Your task to perform on an android device: How much does the HisenseTV cost? Image 0: 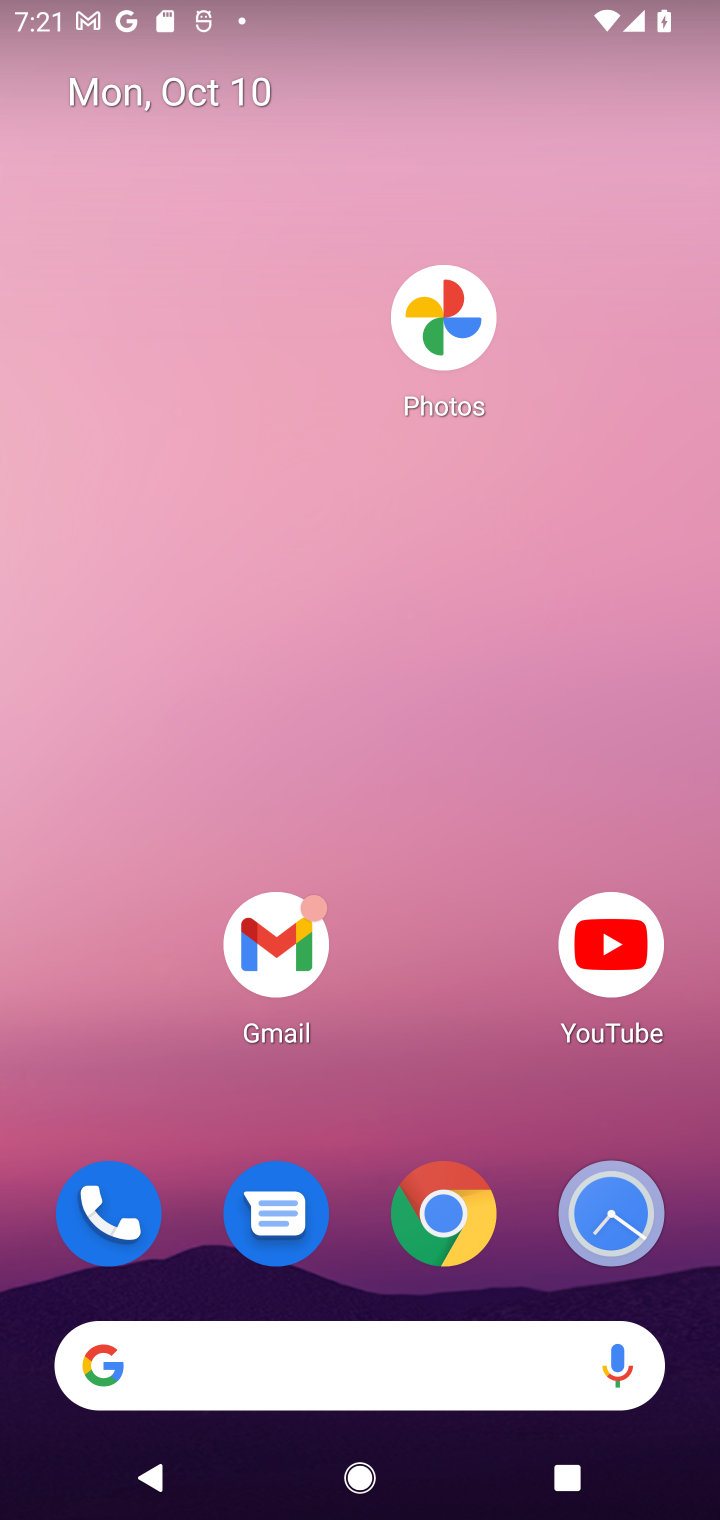
Step 0: click (345, 1386)
Your task to perform on an android device: How much does the HisenseTV cost? Image 1: 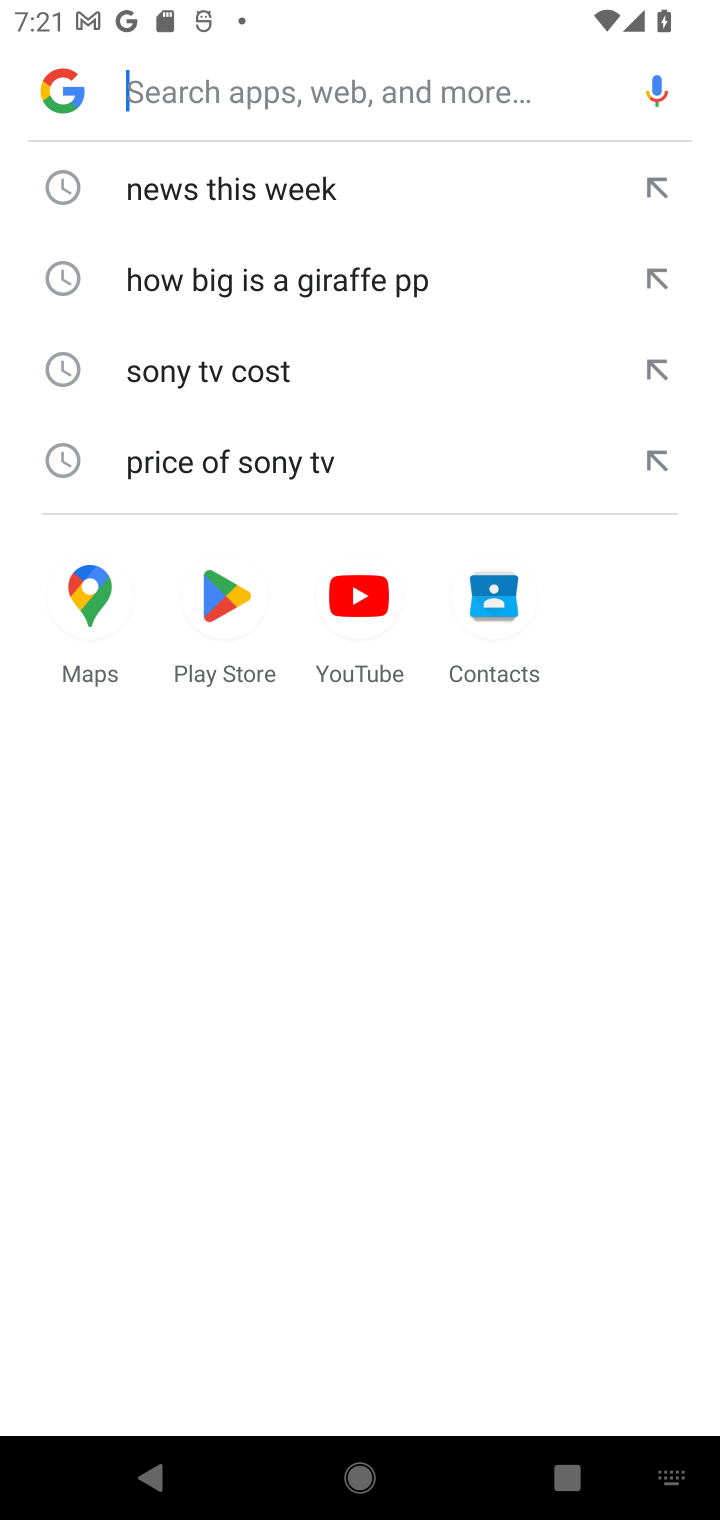
Step 1: type "HisenseTV cost"
Your task to perform on an android device: How much does the HisenseTV cost? Image 2: 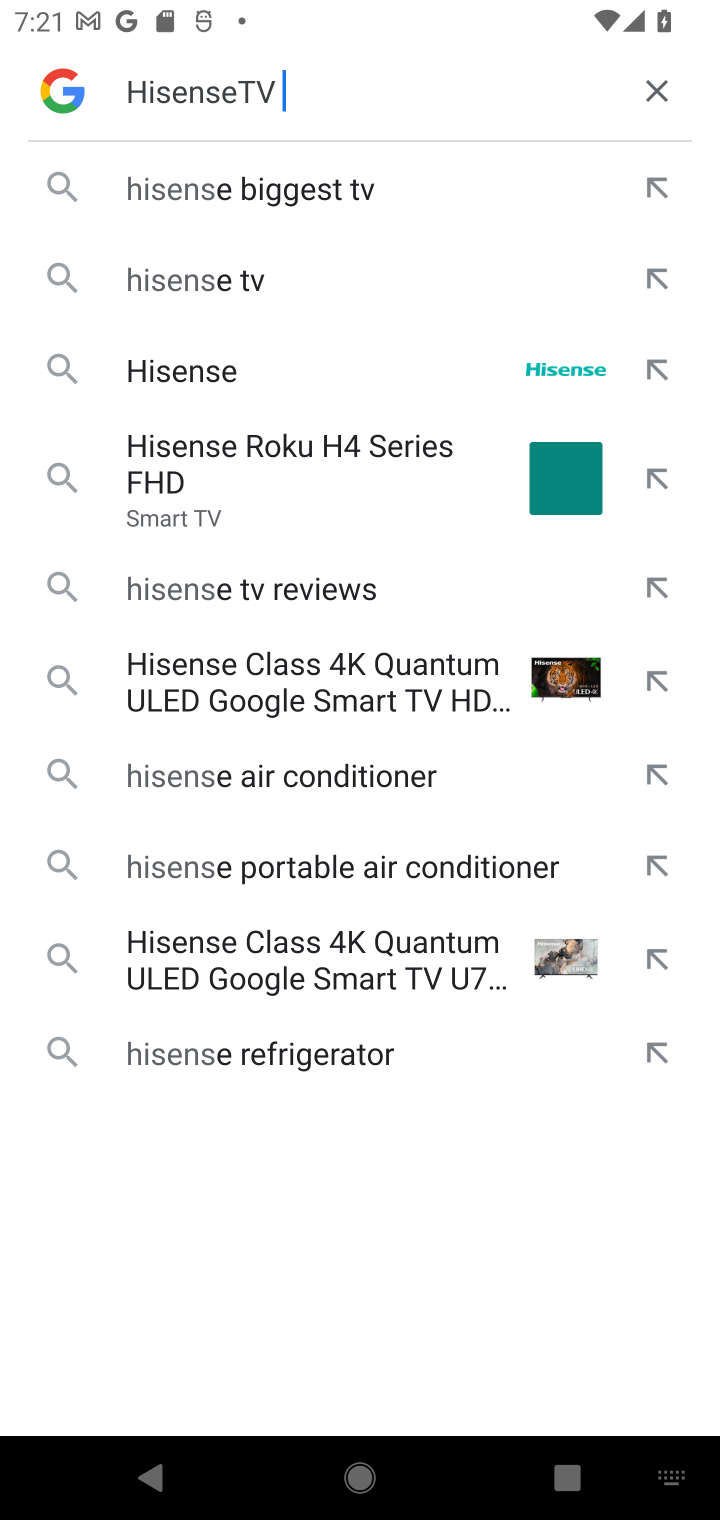
Step 2: type ""
Your task to perform on an android device: How much does the HisenseTV cost? Image 3: 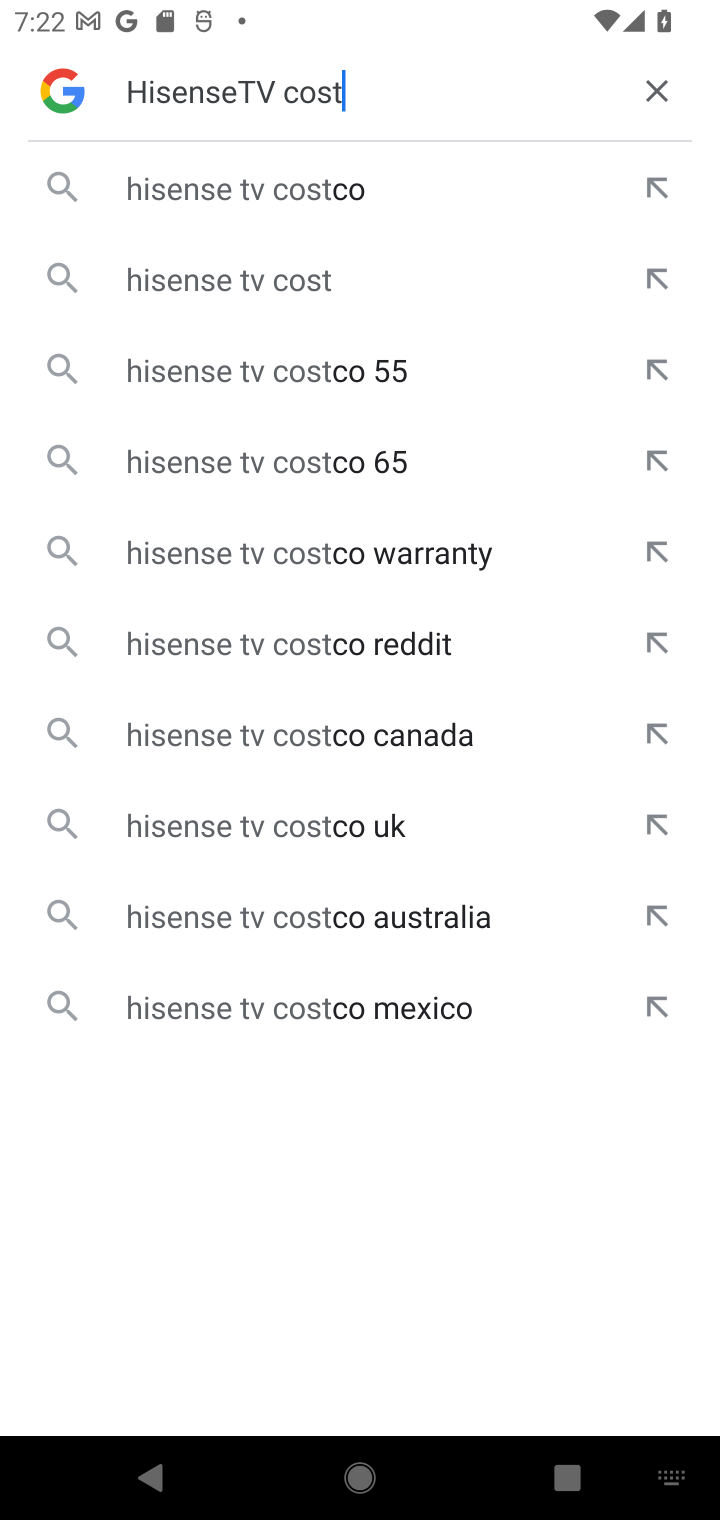
Step 3: click (236, 289)
Your task to perform on an android device: How much does the HisenseTV cost? Image 4: 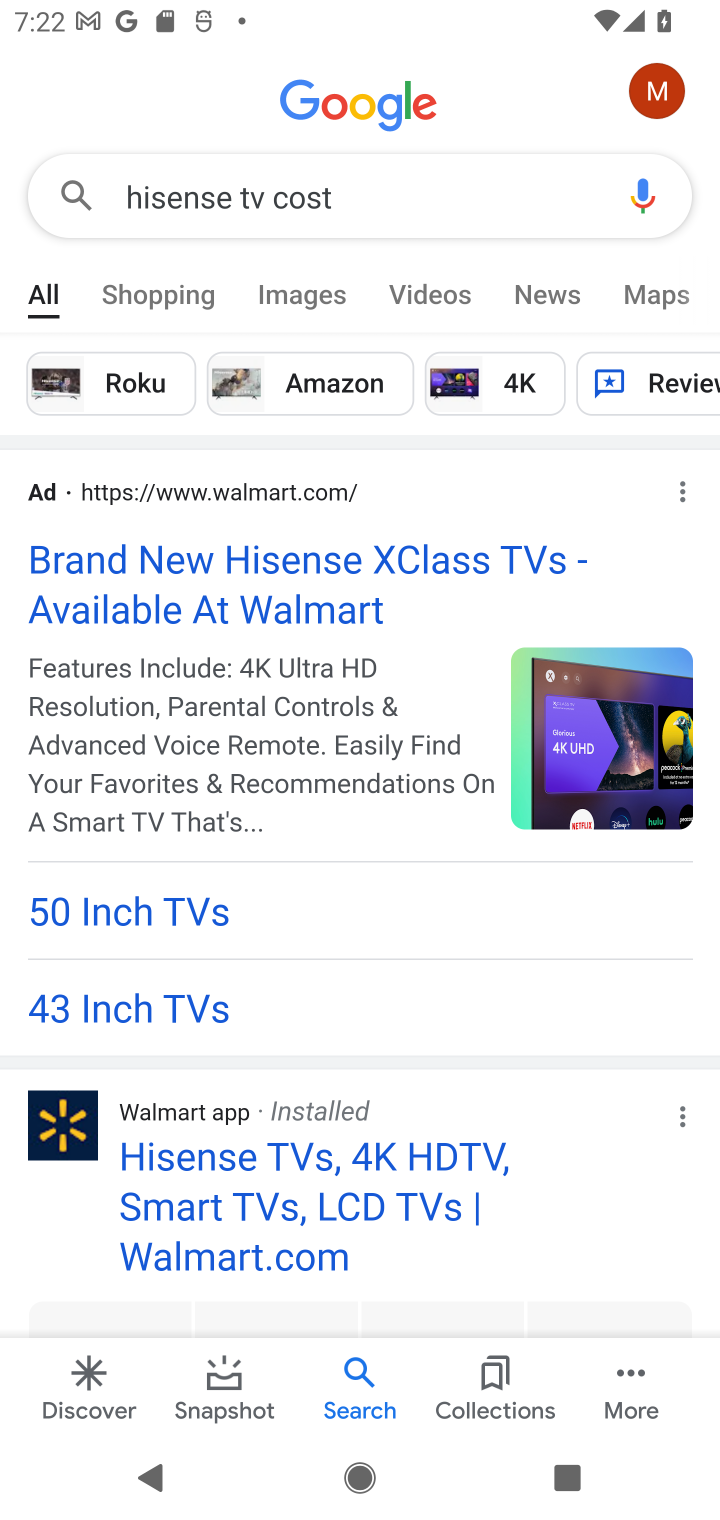
Step 4: task complete